Your task to perform on an android device: install app "Yahoo Mail" Image 0: 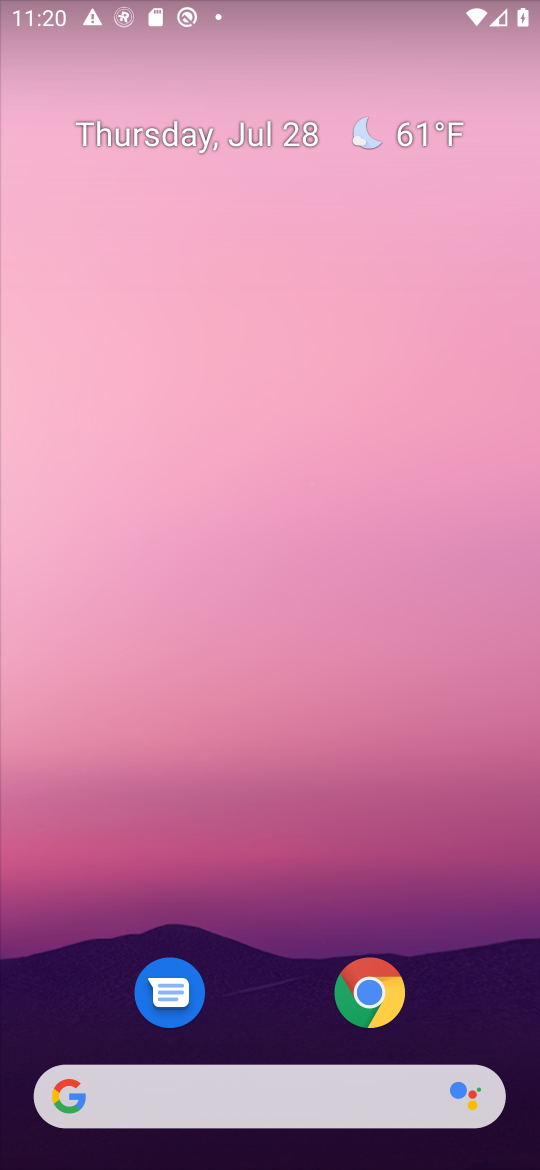
Step 0: drag from (277, 1097) to (356, 107)
Your task to perform on an android device: install app "Yahoo Mail" Image 1: 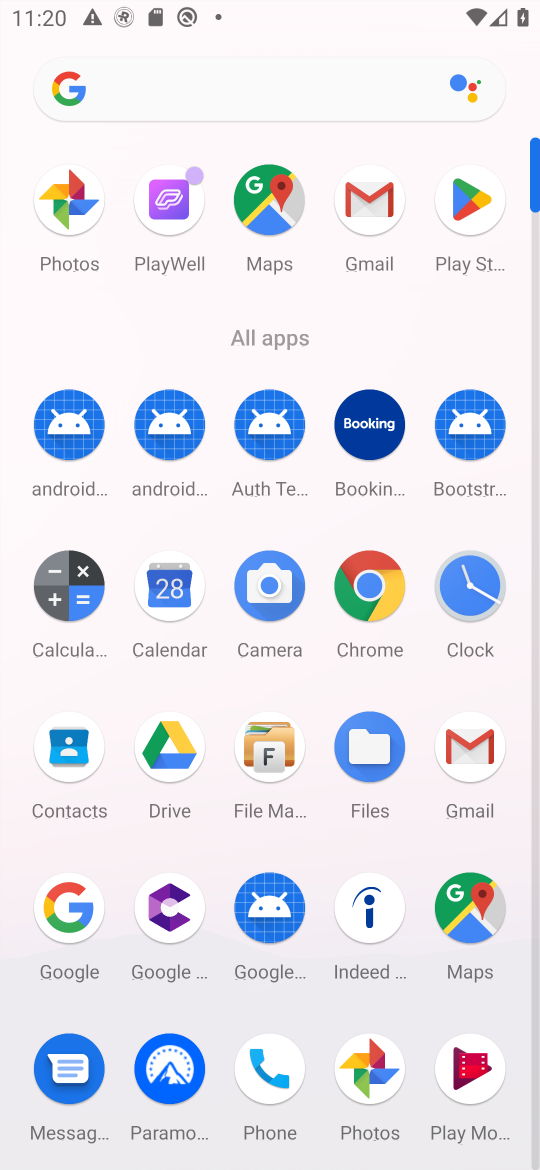
Step 1: click (470, 201)
Your task to perform on an android device: install app "Yahoo Mail" Image 2: 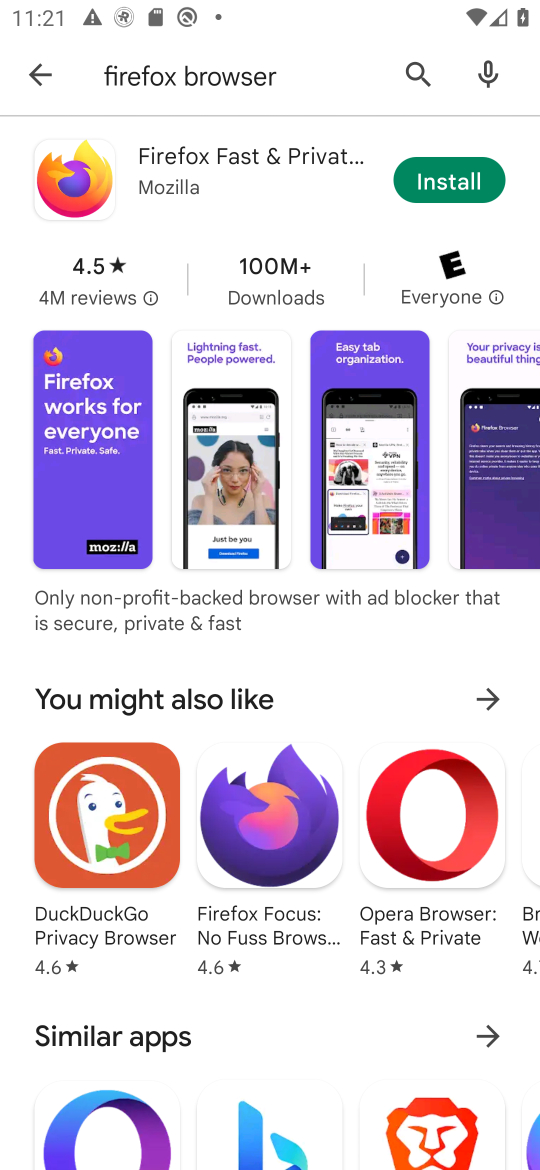
Step 2: click (419, 66)
Your task to perform on an android device: install app "Yahoo Mail" Image 3: 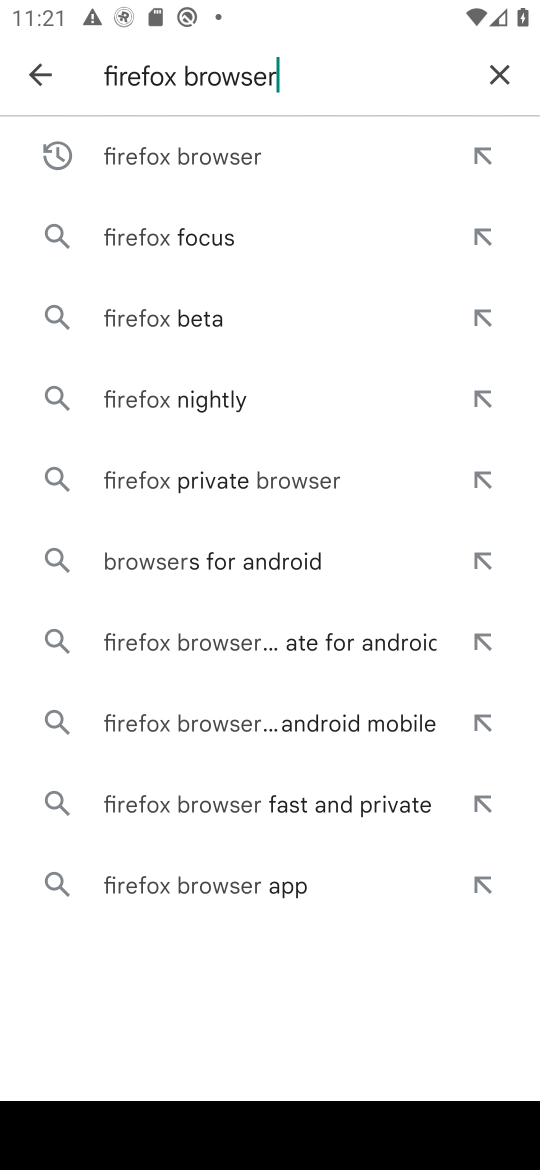
Step 3: click (497, 69)
Your task to perform on an android device: install app "Yahoo Mail" Image 4: 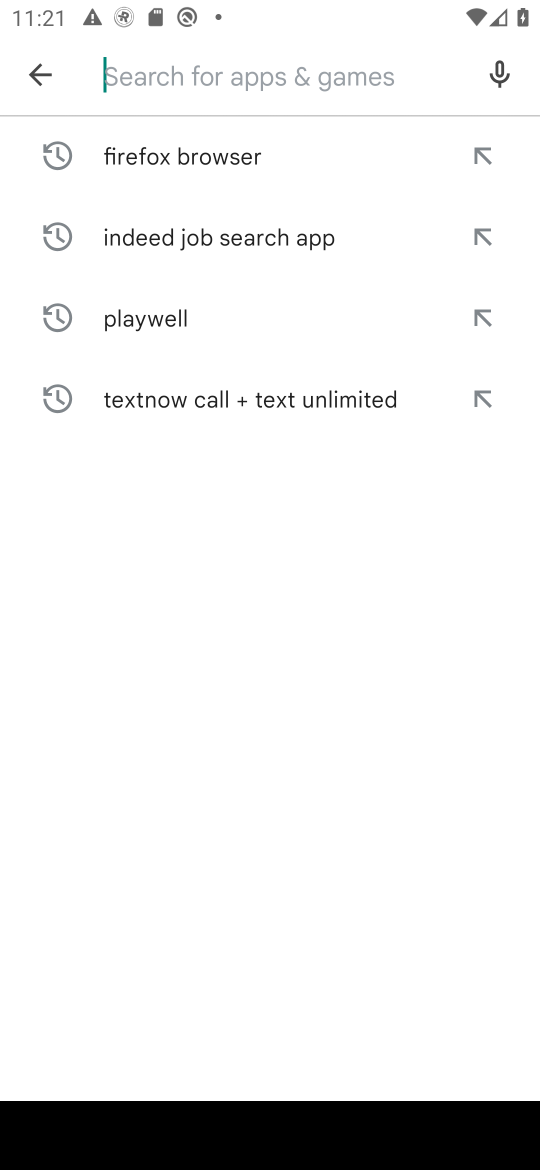
Step 4: type "Yahoo Mail"
Your task to perform on an android device: install app "Yahoo Mail" Image 5: 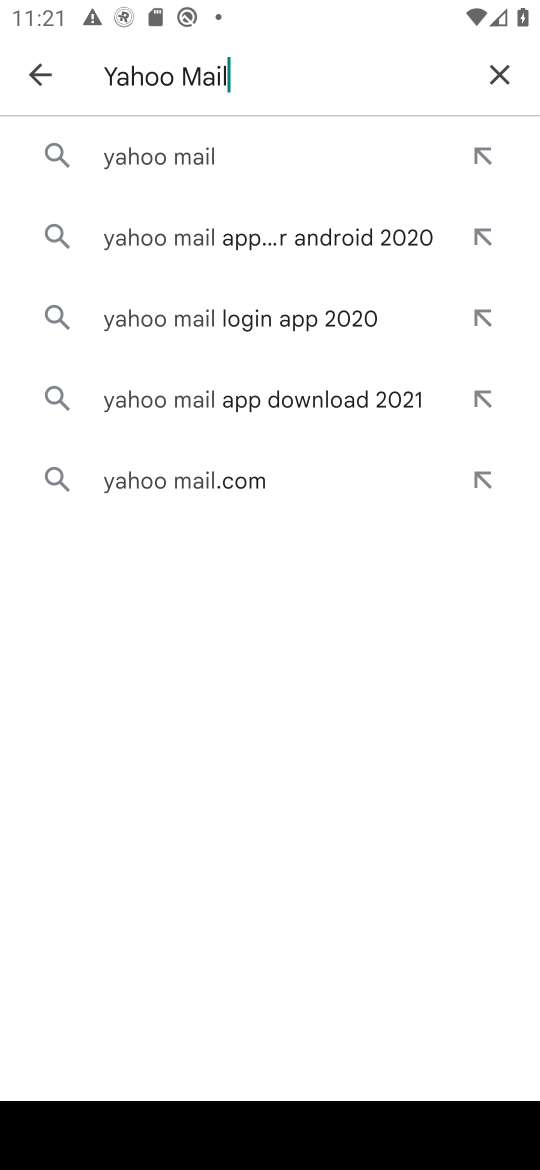
Step 5: click (157, 162)
Your task to perform on an android device: install app "Yahoo Mail" Image 6: 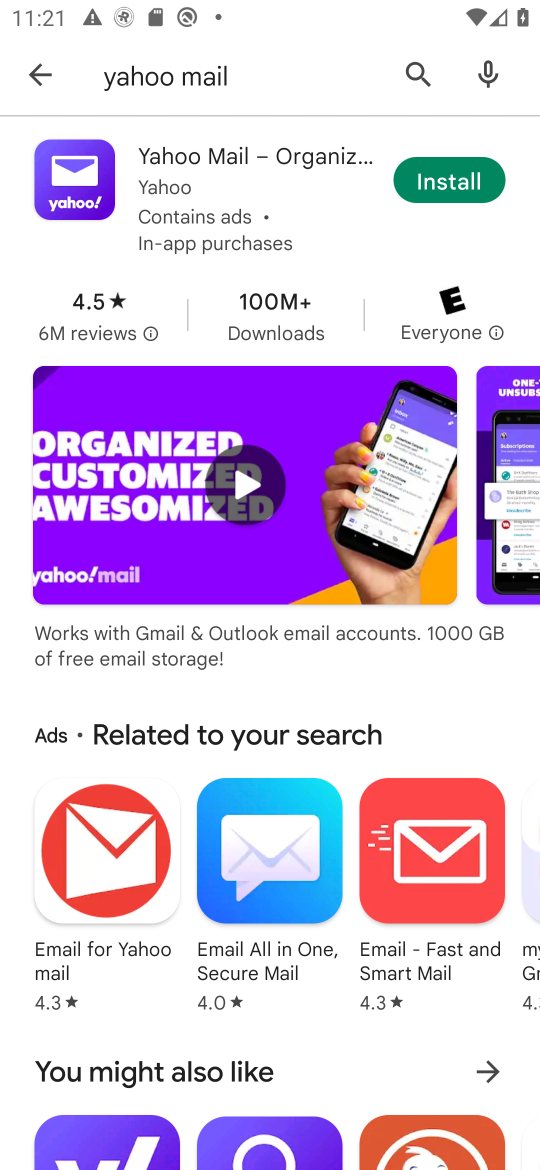
Step 6: click (448, 181)
Your task to perform on an android device: install app "Yahoo Mail" Image 7: 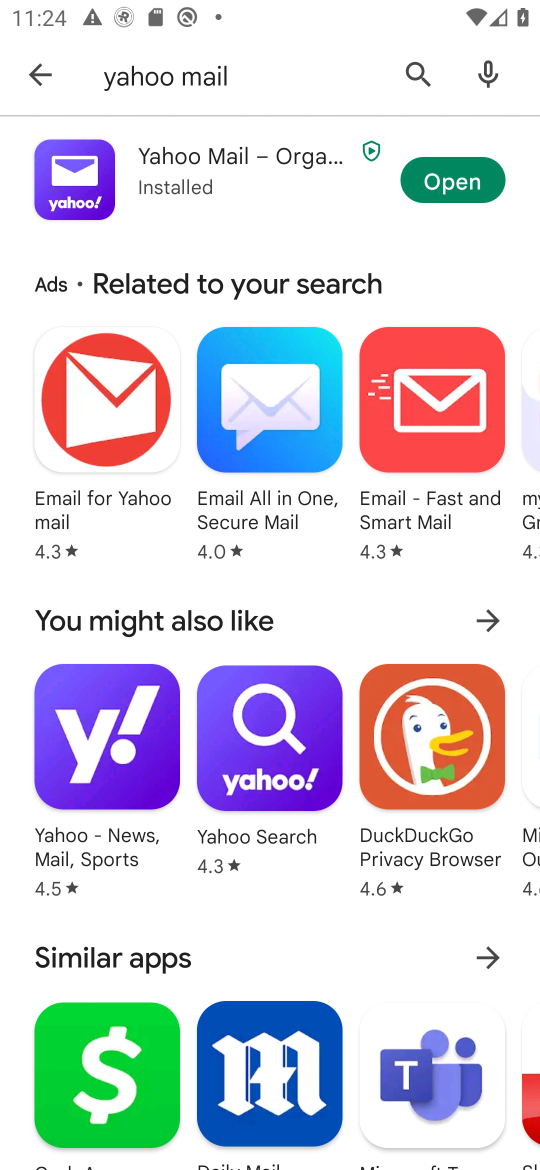
Step 7: task complete